Your task to perform on an android device: turn on improve location accuracy Image 0: 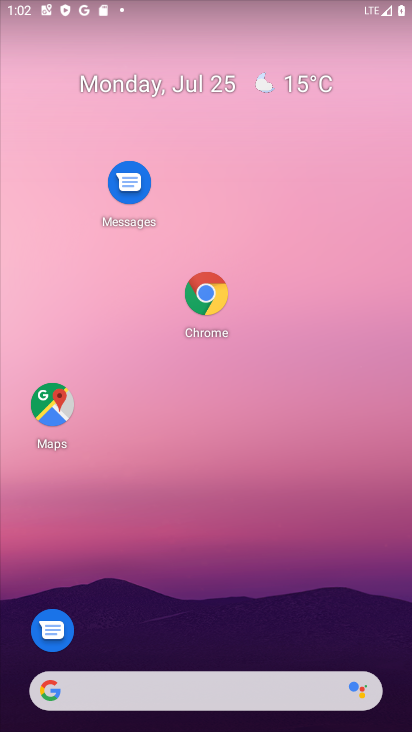
Step 0: press home button
Your task to perform on an android device: turn on improve location accuracy Image 1: 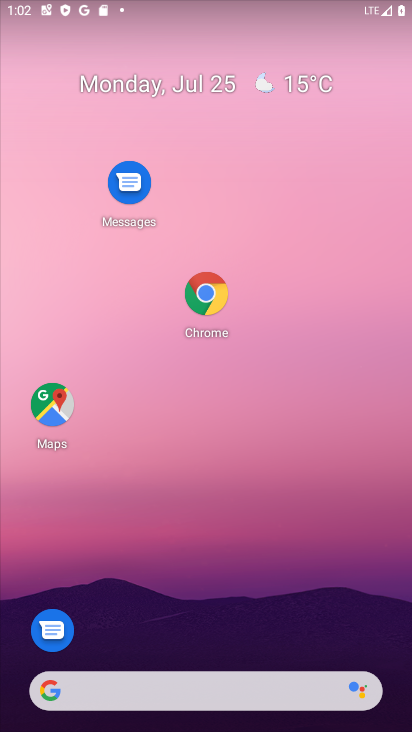
Step 1: click (149, 90)
Your task to perform on an android device: turn on improve location accuracy Image 2: 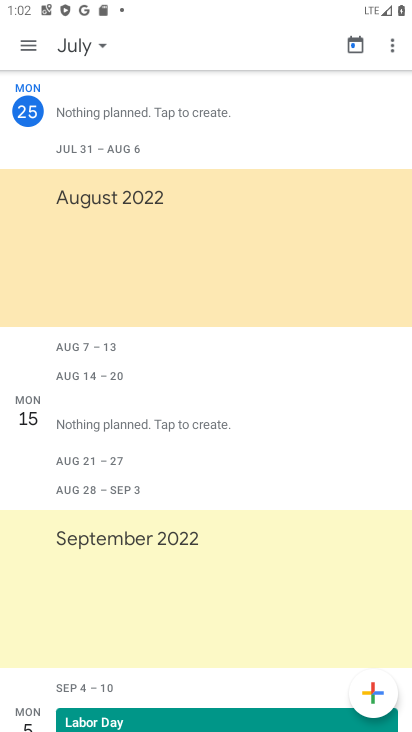
Step 2: press home button
Your task to perform on an android device: turn on improve location accuracy Image 3: 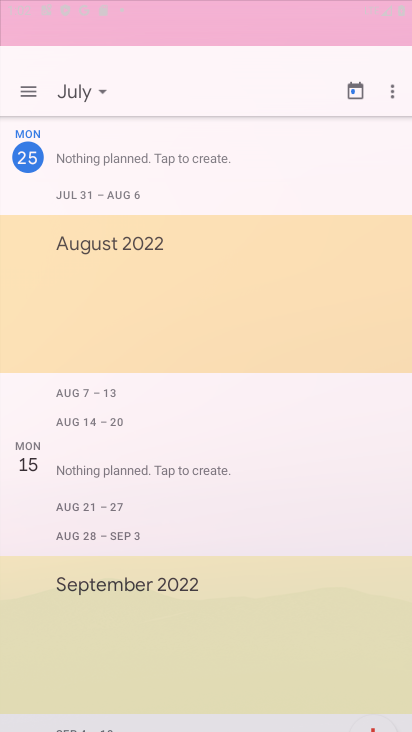
Step 3: drag from (282, 574) to (247, 3)
Your task to perform on an android device: turn on improve location accuracy Image 4: 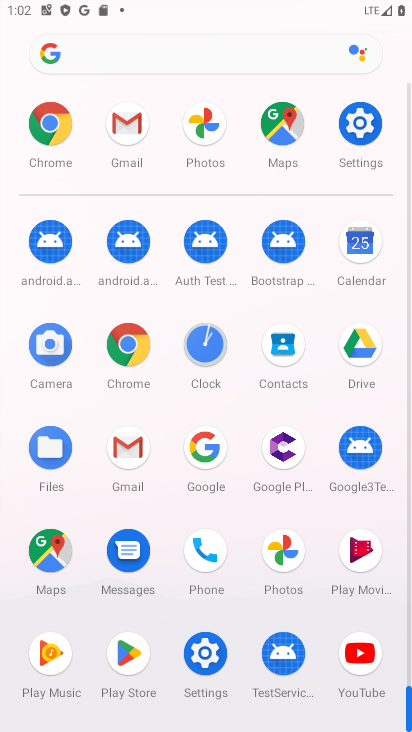
Step 4: click (353, 153)
Your task to perform on an android device: turn on improve location accuracy Image 5: 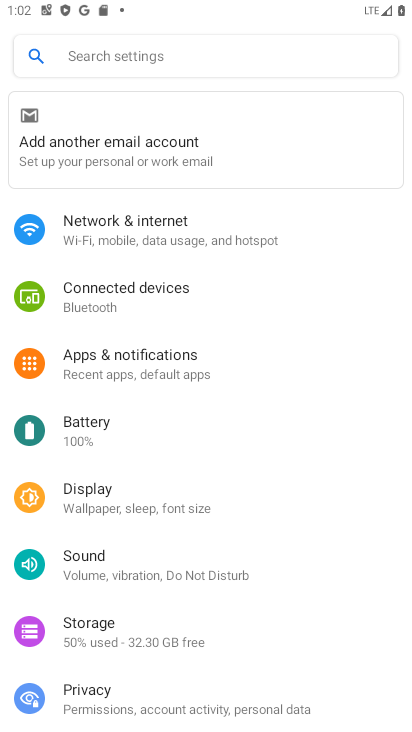
Step 5: click (208, 220)
Your task to perform on an android device: turn on improve location accuracy Image 6: 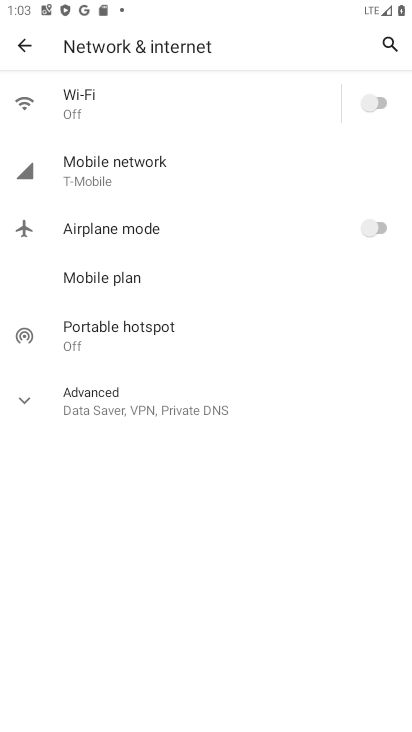
Step 6: click (34, 53)
Your task to perform on an android device: turn on improve location accuracy Image 7: 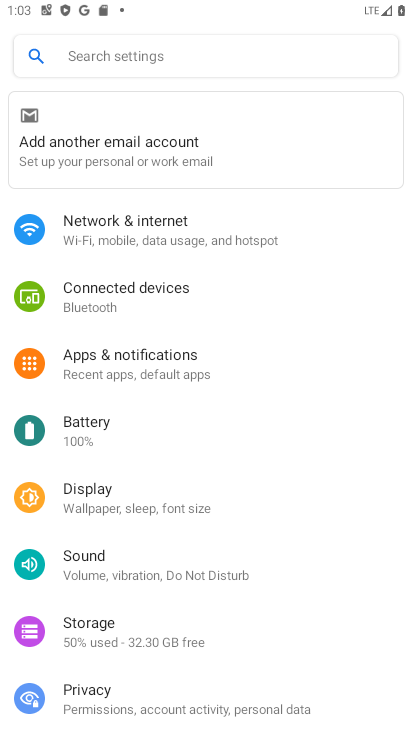
Step 7: drag from (116, 447) to (56, 2)
Your task to perform on an android device: turn on improve location accuracy Image 8: 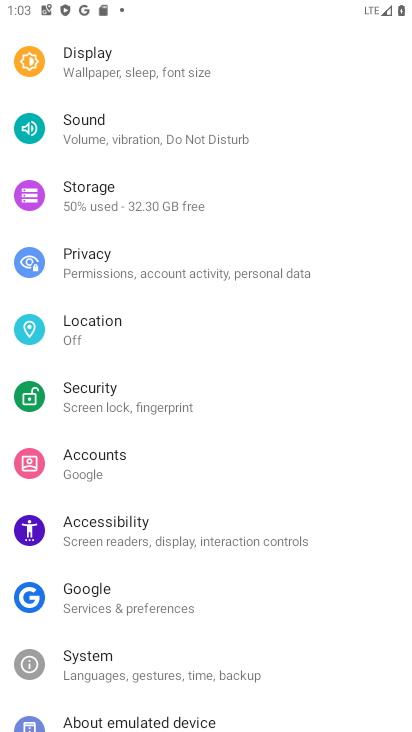
Step 8: click (72, 340)
Your task to perform on an android device: turn on improve location accuracy Image 9: 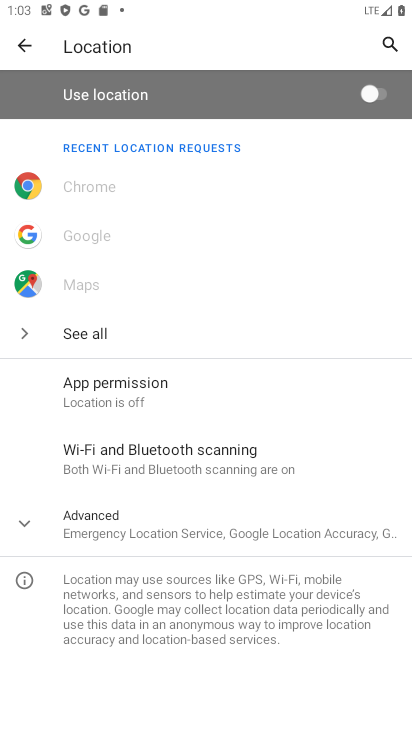
Step 9: click (139, 507)
Your task to perform on an android device: turn on improve location accuracy Image 10: 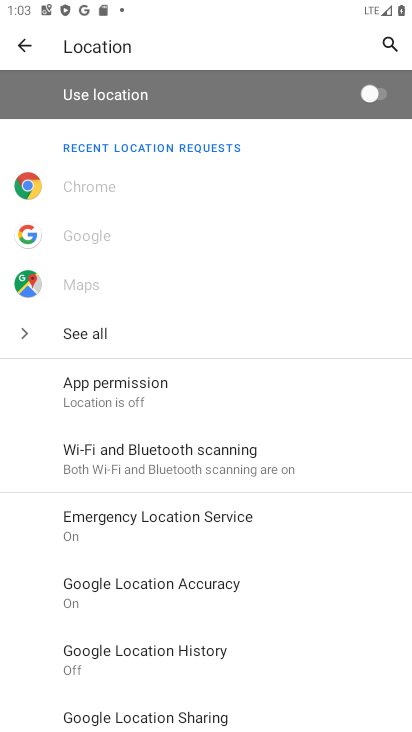
Step 10: click (130, 577)
Your task to perform on an android device: turn on improve location accuracy Image 11: 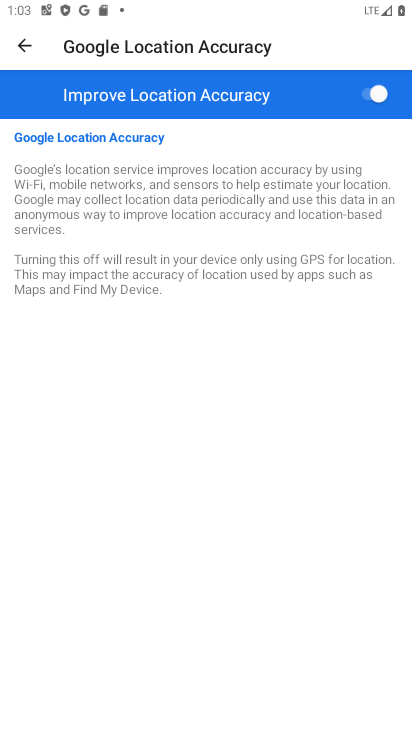
Step 11: task complete